Your task to perform on an android device: Show me recent news Image 0: 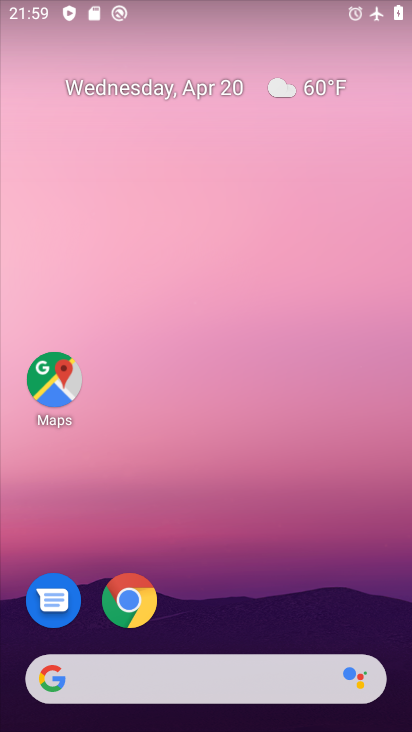
Step 0: drag from (254, 652) to (245, 37)
Your task to perform on an android device: Show me recent news Image 1: 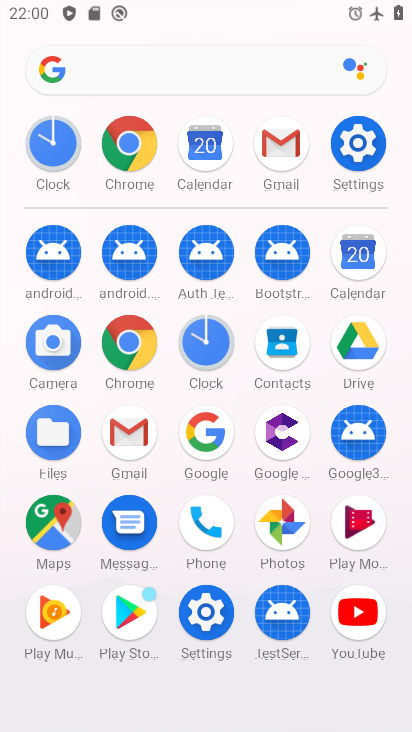
Step 1: task complete